Your task to perform on an android device: Search for vegetarian restaurants on Maps Image 0: 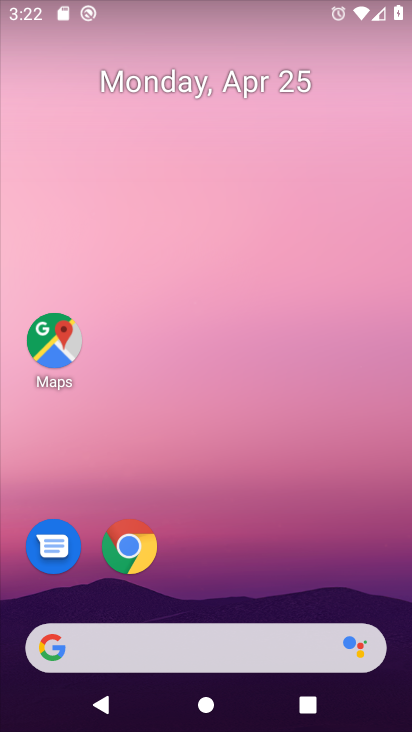
Step 0: drag from (269, 575) to (306, 83)
Your task to perform on an android device: Search for vegetarian restaurants on Maps Image 1: 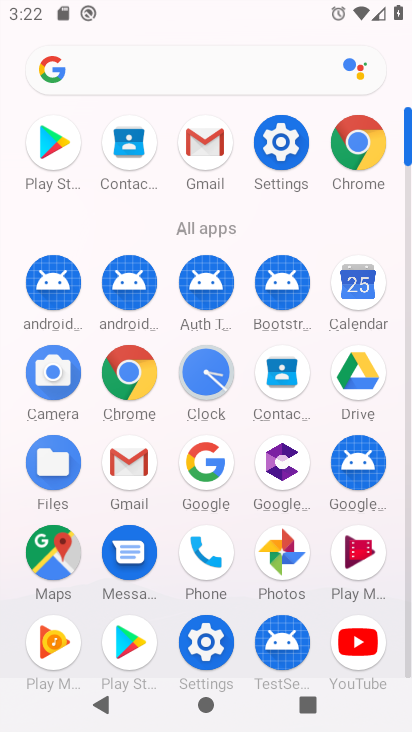
Step 1: click (50, 542)
Your task to perform on an android device: Search for vegetarian restaurants on Maps Image 2: 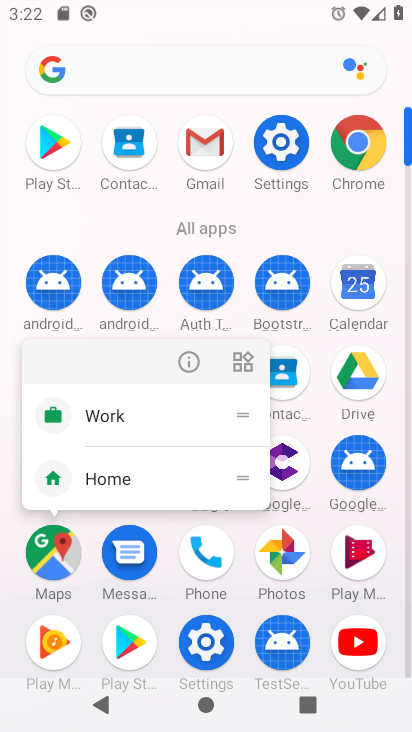
Step 2: click (50, 541)
Your task to perform on an android device: Search for vegetarian restaurants on Maps Image 3: 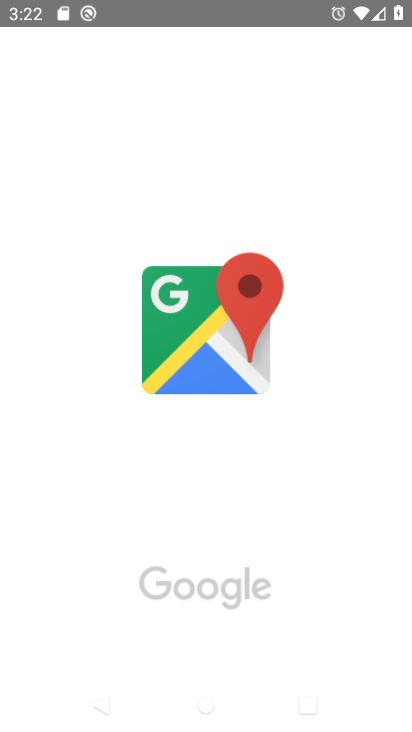
Step 3: press home button
Your task to perform on an android device: Search for vegetarian restaurants on Maps Image 4: 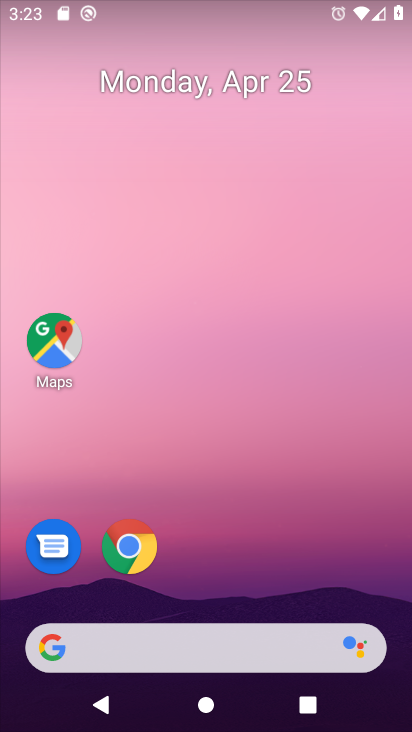
Step 4: click (52, 341)
Your task to perform on an android device: Search for vegetarian restaurants on Maps Image 5: 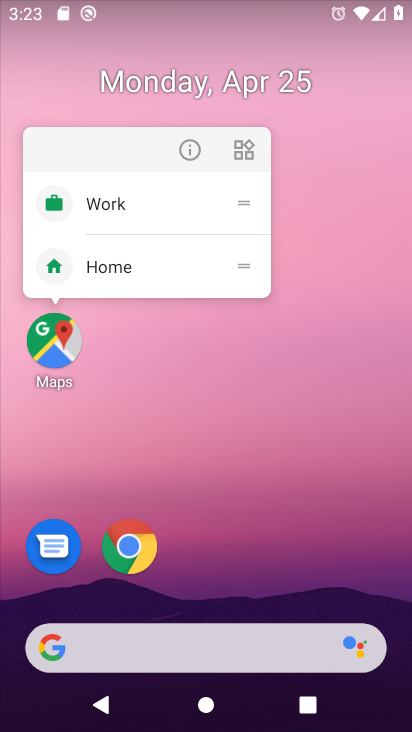
Step 5: click (52, 341)
Your task to perform on an android device: Search for vegetarian restaurants on Maps Image 6: 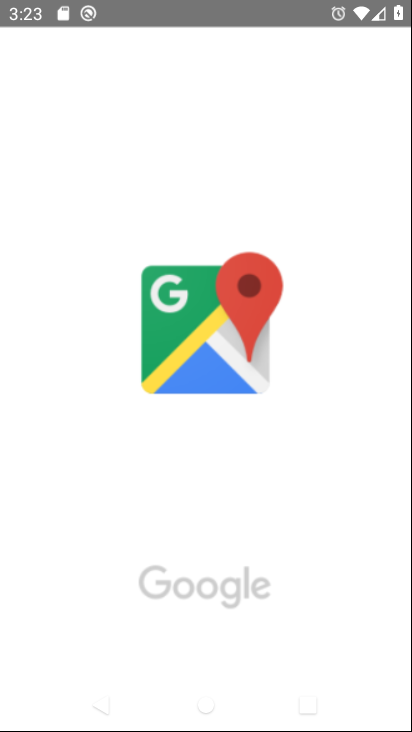
Step 6: task complete